Your task to perform on an android device: Go to Yahoo.com Image 0: 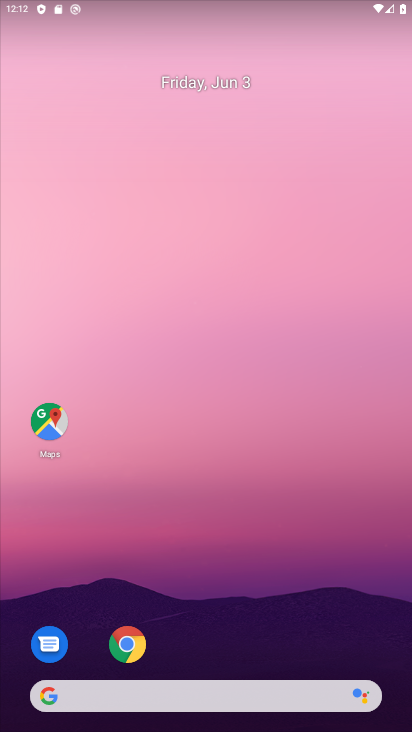
Step 0: click (124, 643)
Your task to perform on an android device: Go to Yahoo.com Image 1: 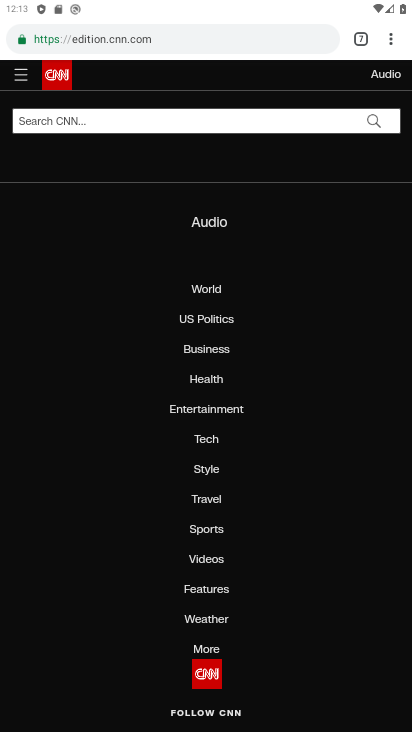
Step 1: click (391, 42)
Your task to perform on an android device: Go to Yahoo.com Image 2: 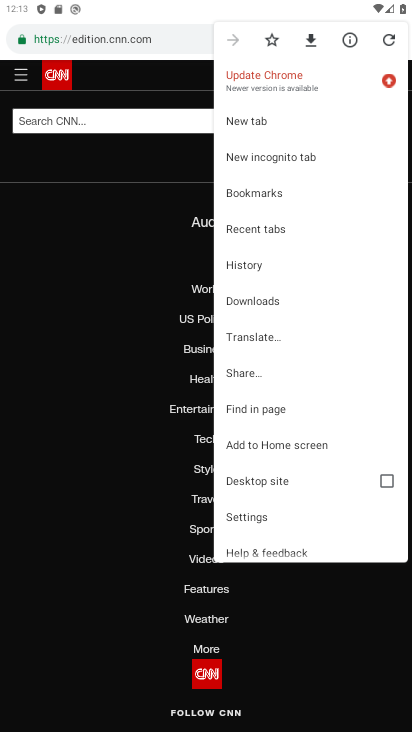
Step 2: click (250, 121)
Your task to perform on an android device: Go to Yahoo.com Image 3: 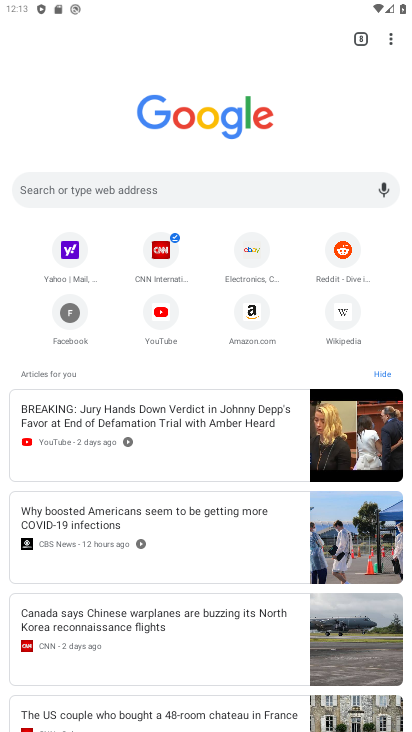
Step 3: click (72, 248)
Your task to perform on an android device: Go to Yahoo.com Image 4: 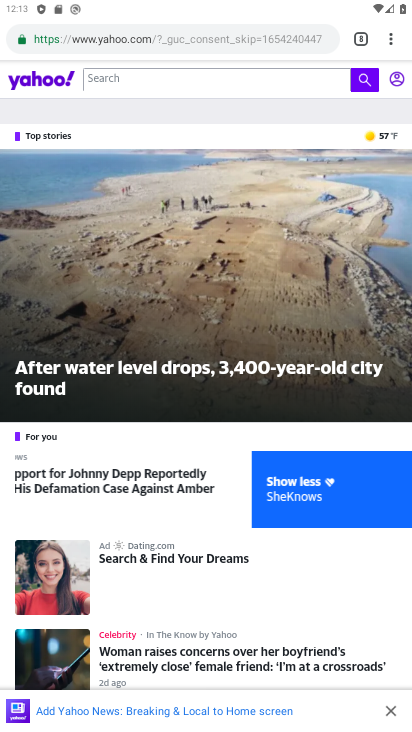
Step 4: task complete